Your task to perform on an android device: toggle notification dots Image 0: 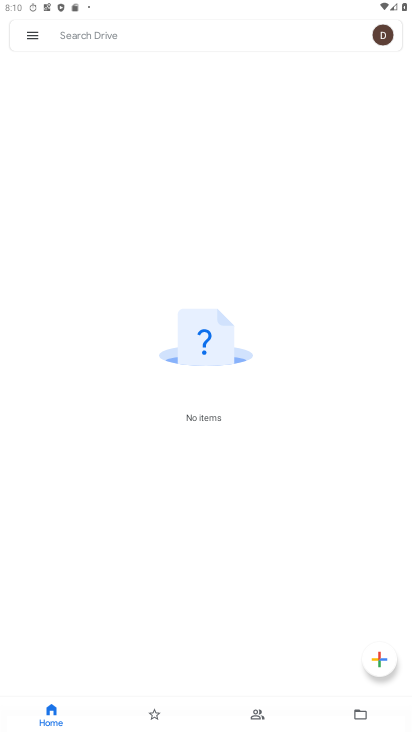
Step 0: press home button
Your task to perform on an android device: toggle notification dots Image 1: 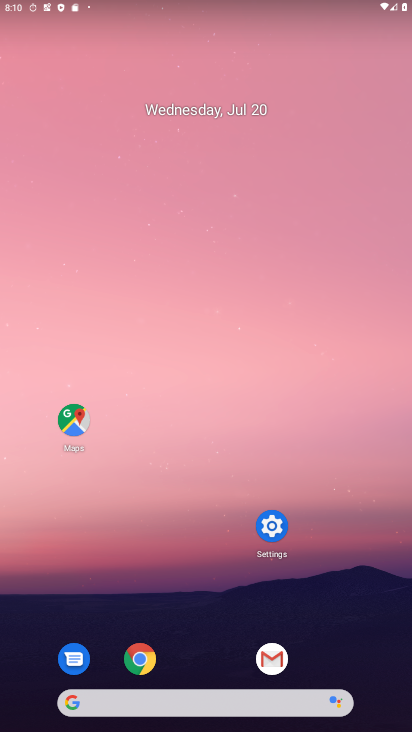
Step 1: click (269, 540)
Your task to perform on an android device: toggle notification dots Image 2: 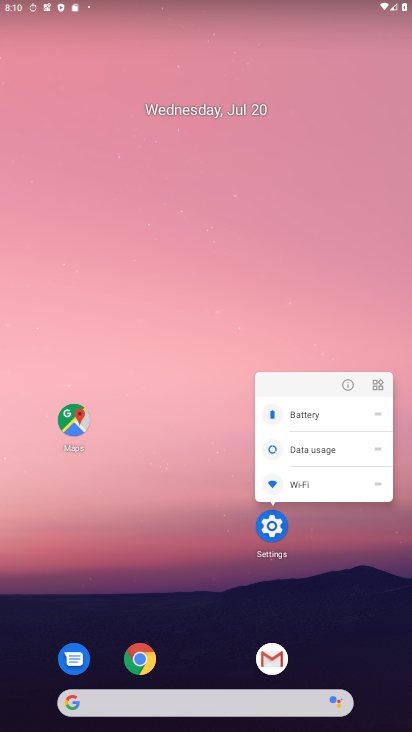
Step 2: click (275, 523)
Your task to perform on an android device: toggle notification dots Image 3: 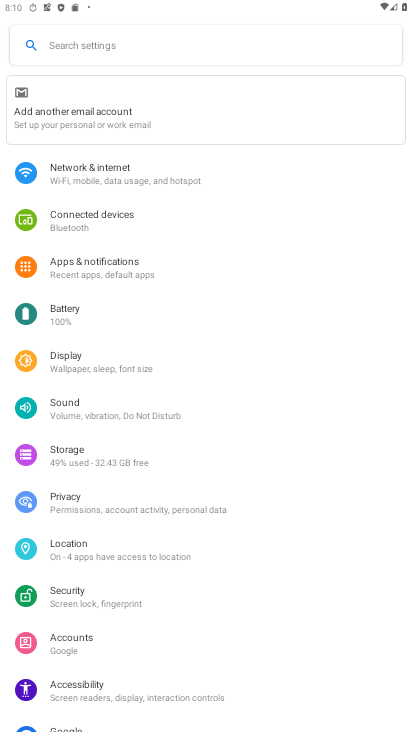
Step 3: click (79, 58)
Your task to perform on an android device: toggle notification dots Image 4: 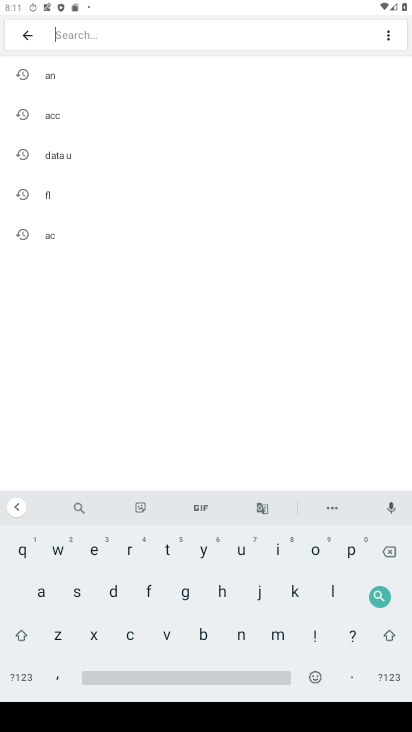
Step 4: click (239, 637)
Your task to perform on an android device: toggle notification dots Image 5: 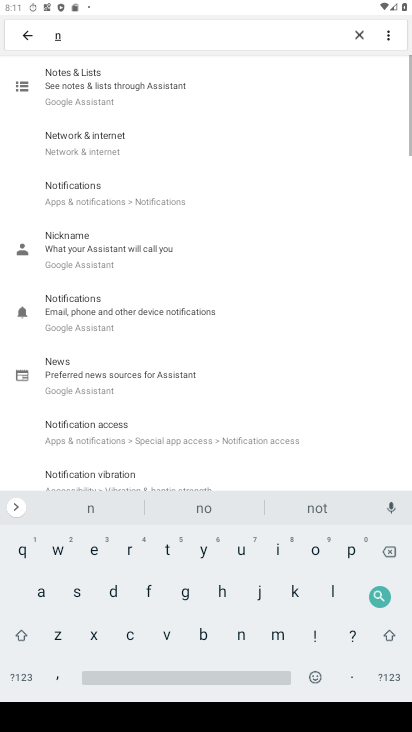
Step 5: click (316, 555)
Your task to perform on an android device: toggle notification dots Image 6: 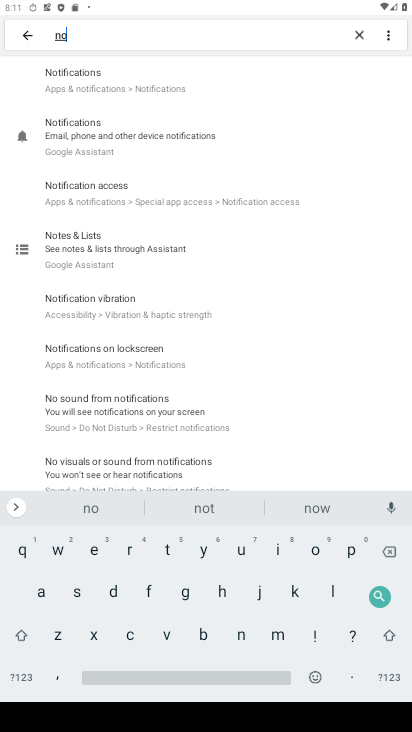
Step 6: click (101, 78)
Your task to perform on an android device: toggle notification dots Image 7: 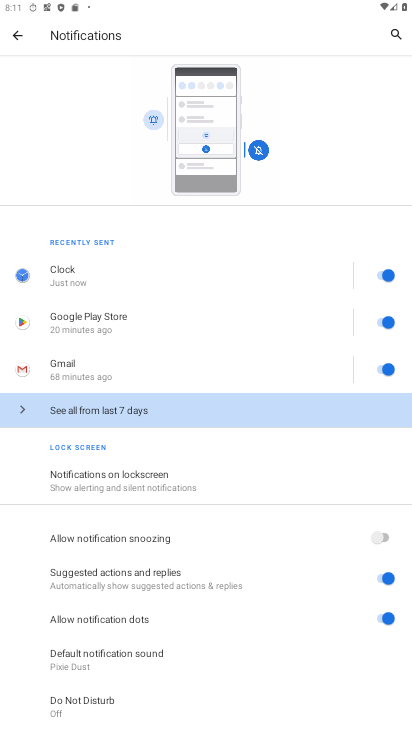
Step 7: click (330, 623)
Your task to perform on an android device: toggle notification dots Image 8: 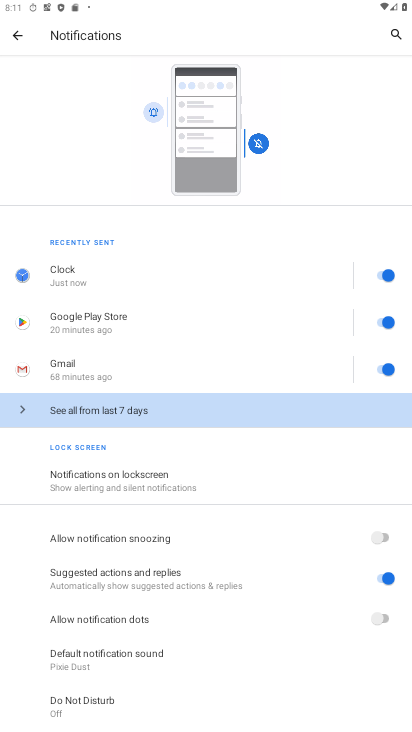
Step 8: click (330, 623)
Your task to perform on an android device: toggle notification dots Image 9: 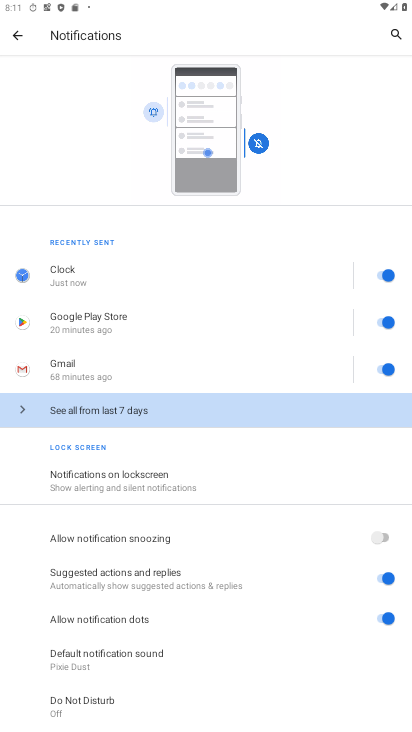
Step 9: task complete